Your task to perform on an android device: Search for razer blackwidow on bestbuy.com, select the first entry, add it to the cart, then select checkout. Image 0: 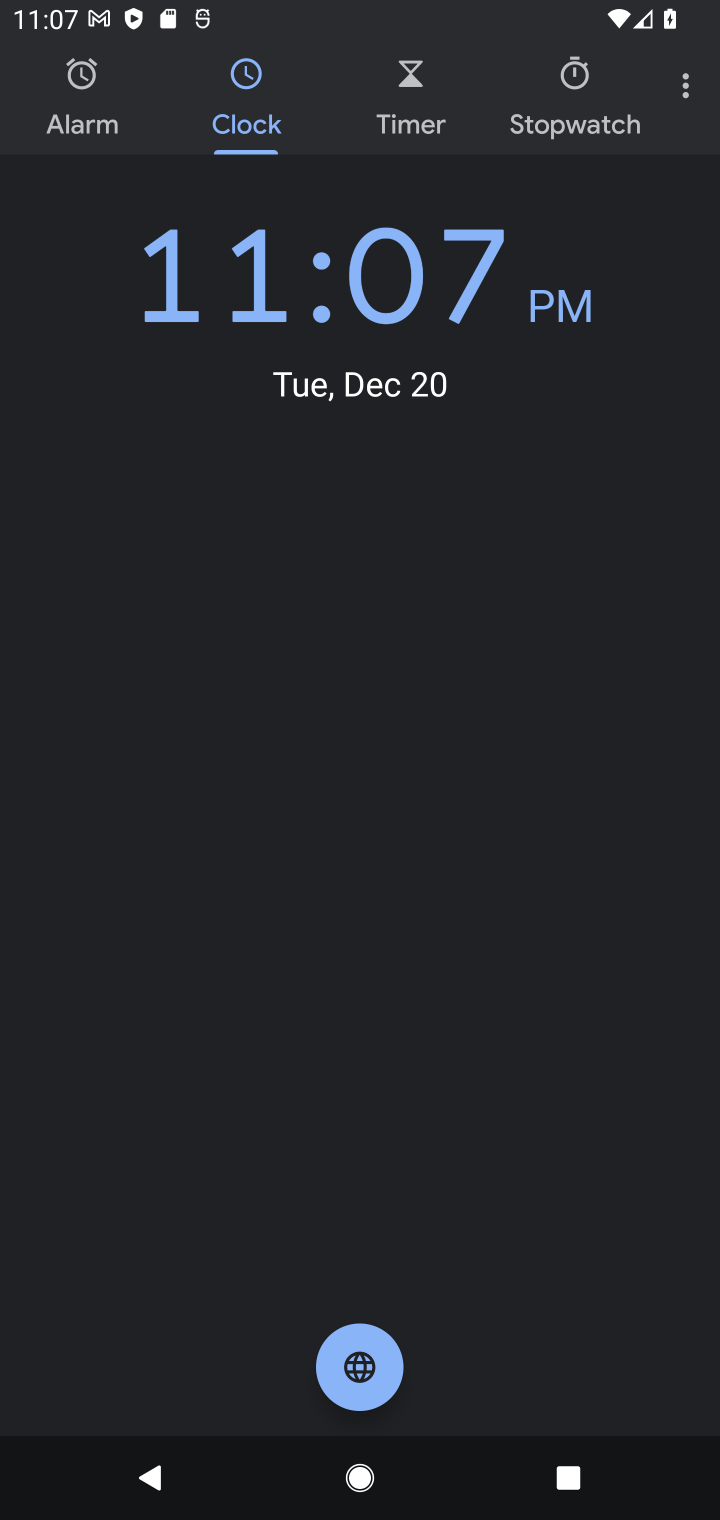
Step 0: press home button
Your task to perform on an android device: Search for razer blackwidow on bestbuy.com, select the first entry, add it to the cart, then select checkout. Image 1: 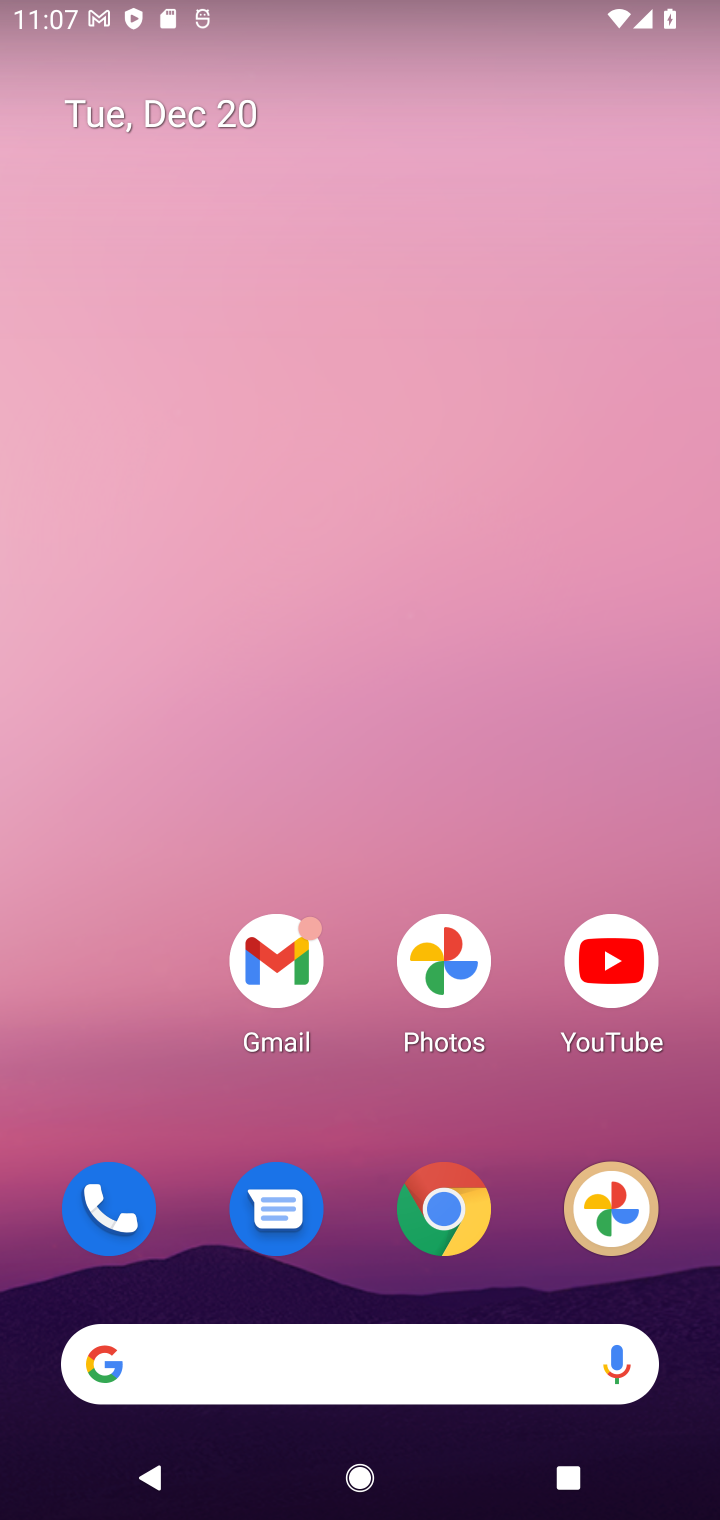
Step 1: click (441, 1211)
Your task to perform on an android device: Search for razer blackwidow on bestbuy.com, select the first entry, add it to the cart, then select checkout. Image 2: 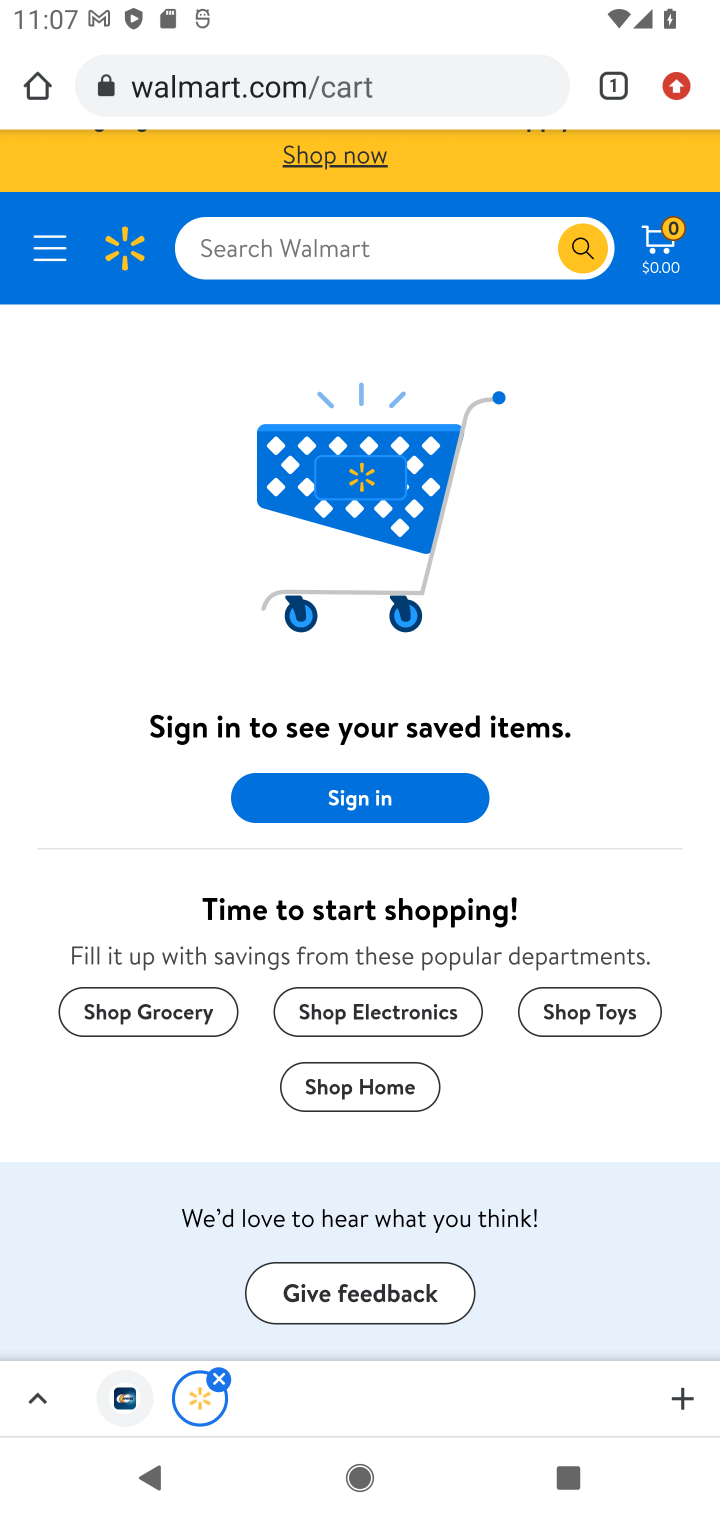
Step 2: click (257, 89)
Your task to perform on an android device: Search for razer blackwidow on bestbuy.com, select the first entry, add it to the cart, then select checkout. Image 3: 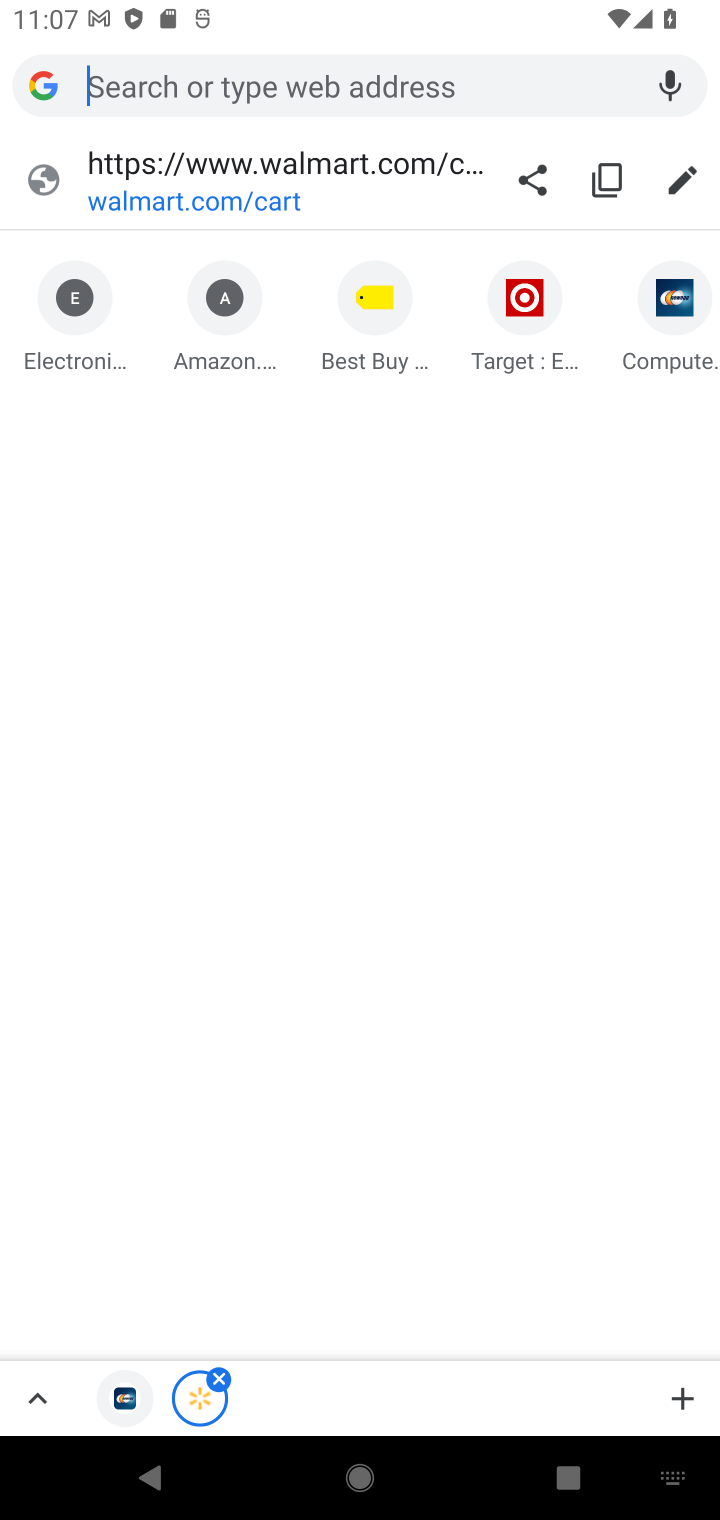
Step 3: click (355, 376)
Your task to perform on an android device: Search for razer blackwidow on bestbuy.com, select the first entry, add it to the cart, then select checkout. Image 4: 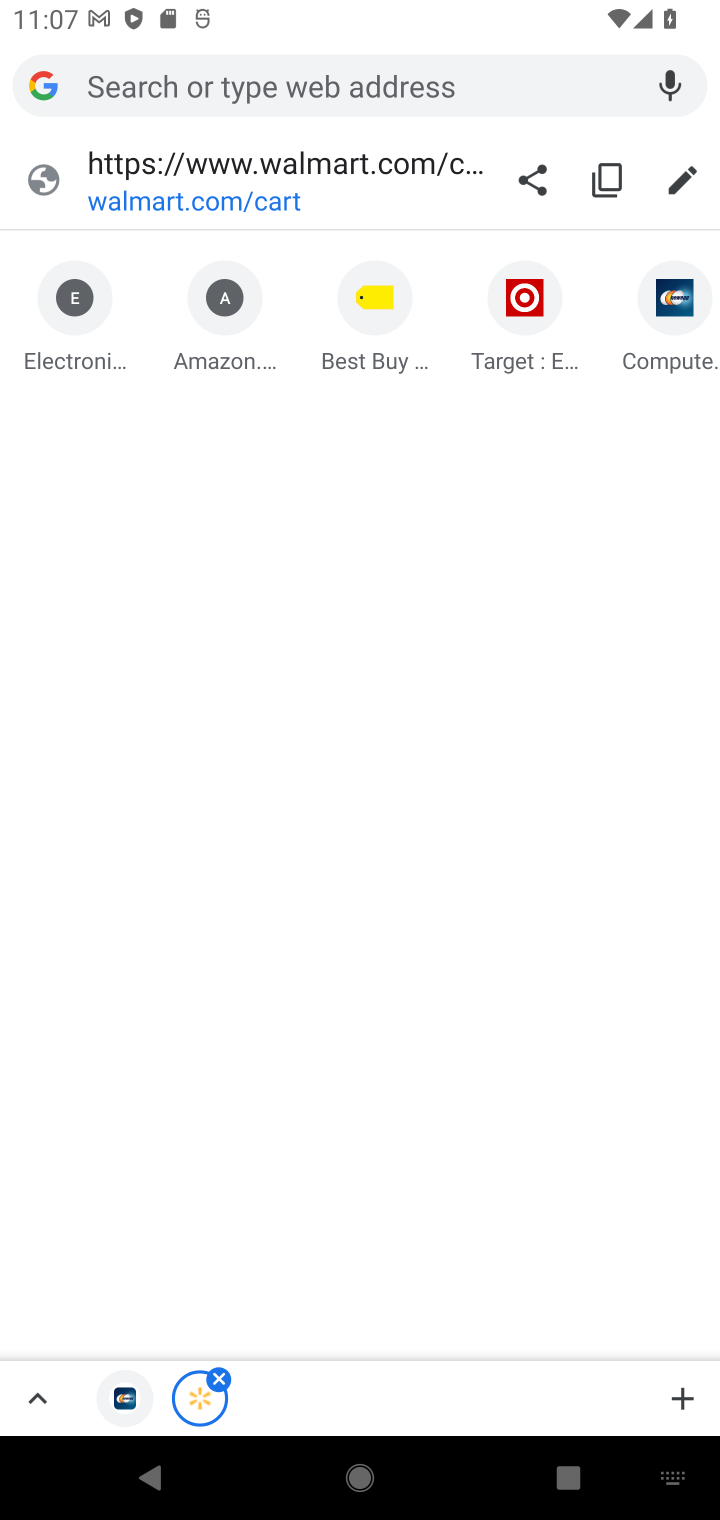
Step 4: click (367, 337)
Your task to perform on an android device: Search for razer blackwidow on bestbuy.com, select the first entry, add it to the cart, then select checkout. Image 5: 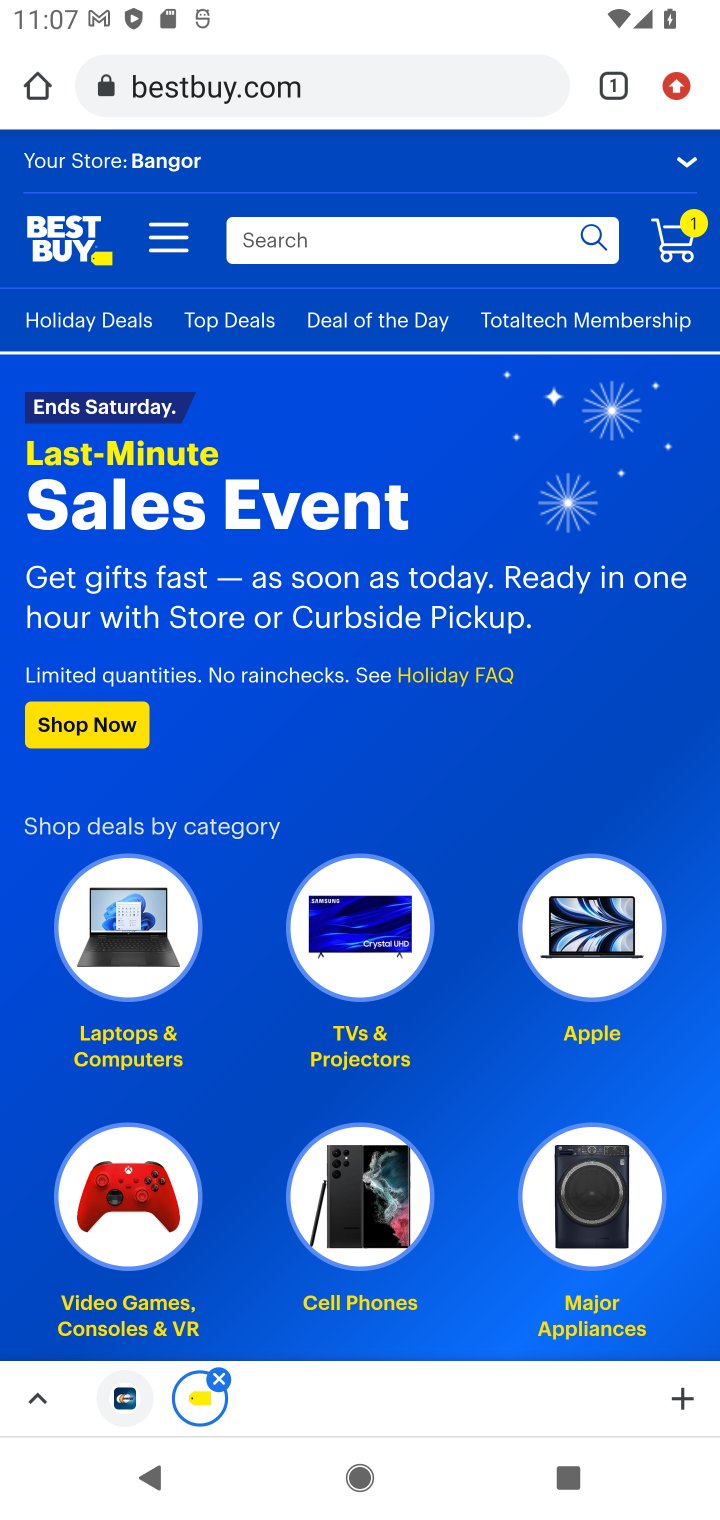
Step 5: click (293, 247)
Your task to perform on an android device: Search for razer blackwidow on bestbuy.com, select the first entry, add it to the cart, then select checkout. Image 6: 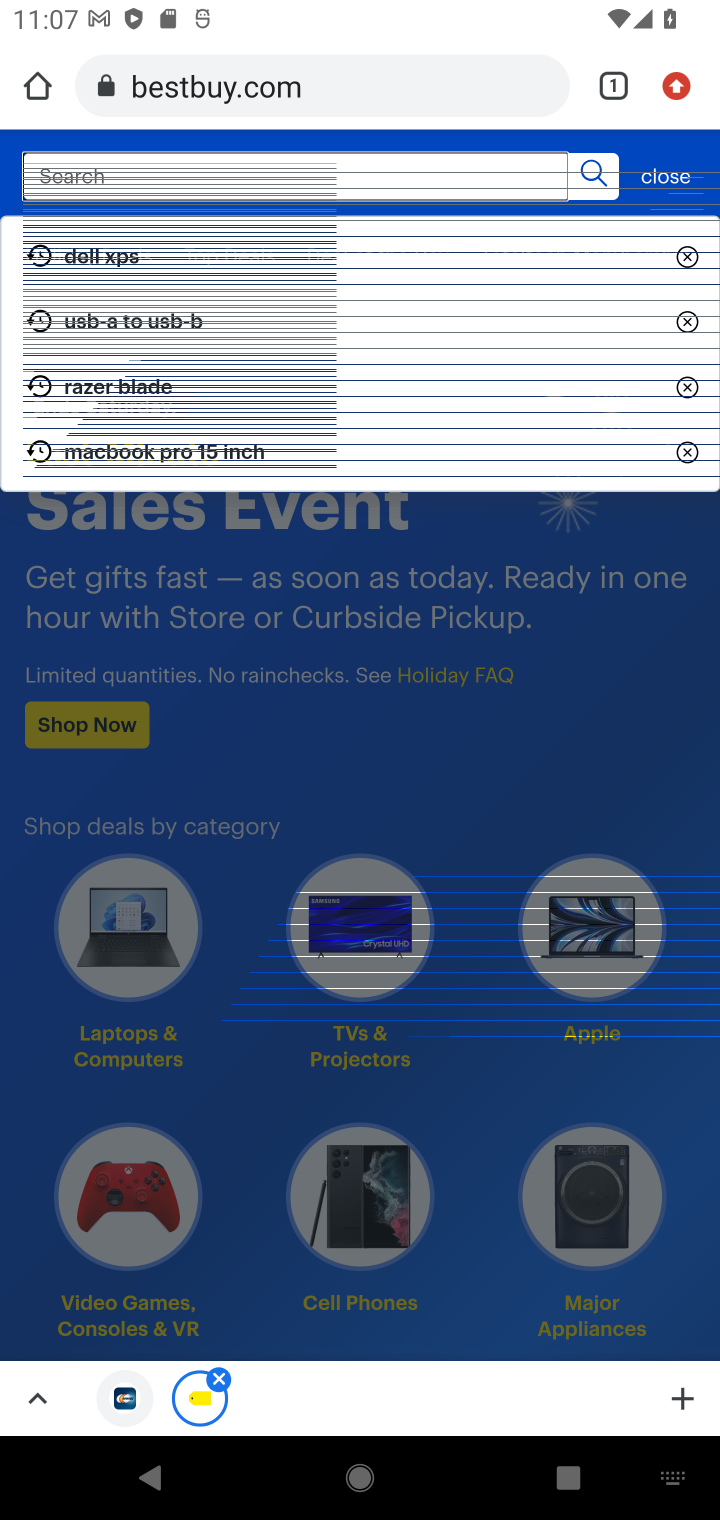
Step 6: type "razer blackwidow"
Your task to perform on an android device: Search for razer blackwidow on bestbuy.com, select the first entry, add it to the cart, then select checkout. Image 7: 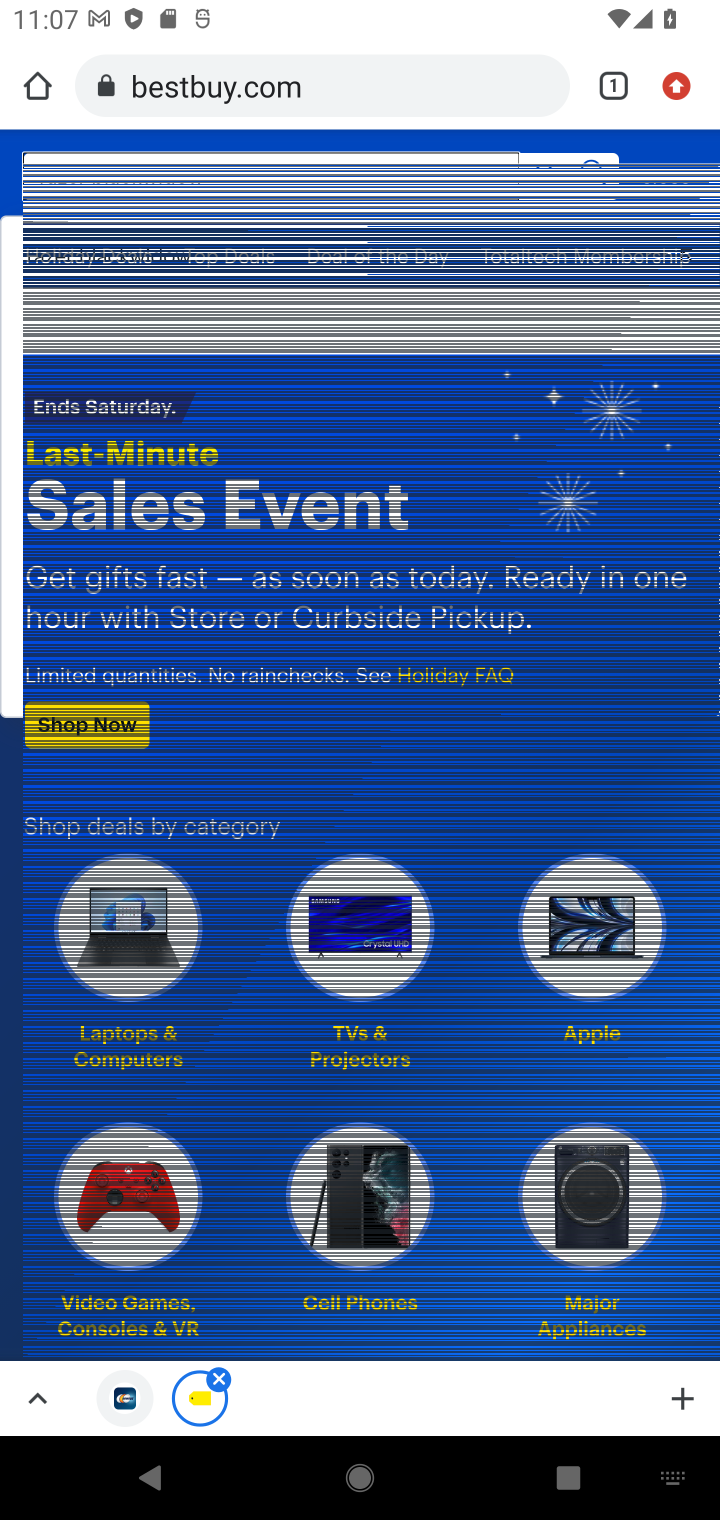
Step 7: click (170, 261)
Your task to perform on an android device: Search for razer blackwidow on bestbuy.com, select the first entry, add it to the cart, then select checkout. Image 8: 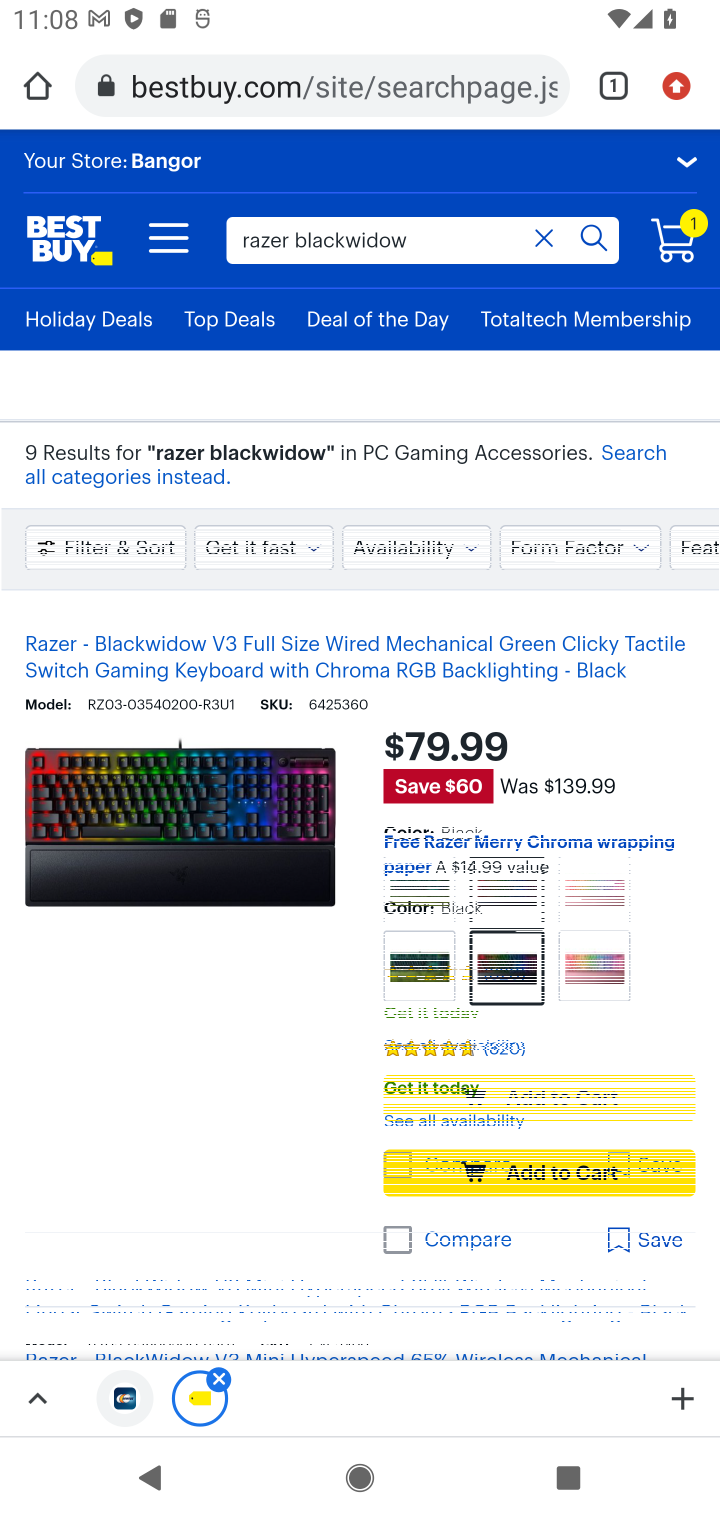
Step 8: click (513, 1102)
Your task to perform on an android device: Search for razer blackwidow on bestbuy.com, select the first entry, add it to the cart, then select checkout. Image 9: 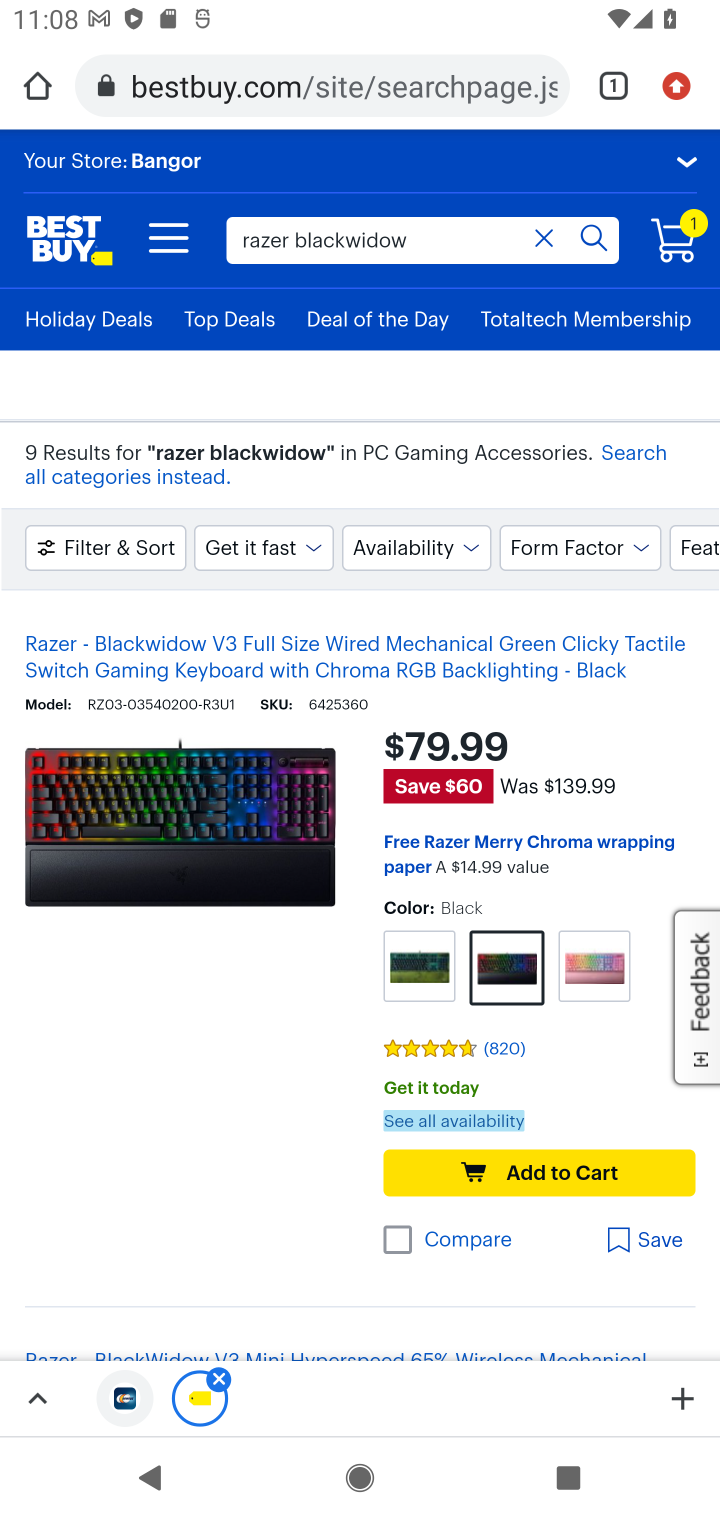
Step 9: click (502, 1164)
Your task to perform on an android device: Search for razer blackwidow on bestbuy.com, select the first entry, add it to the cart, then select checkout. Image 10: 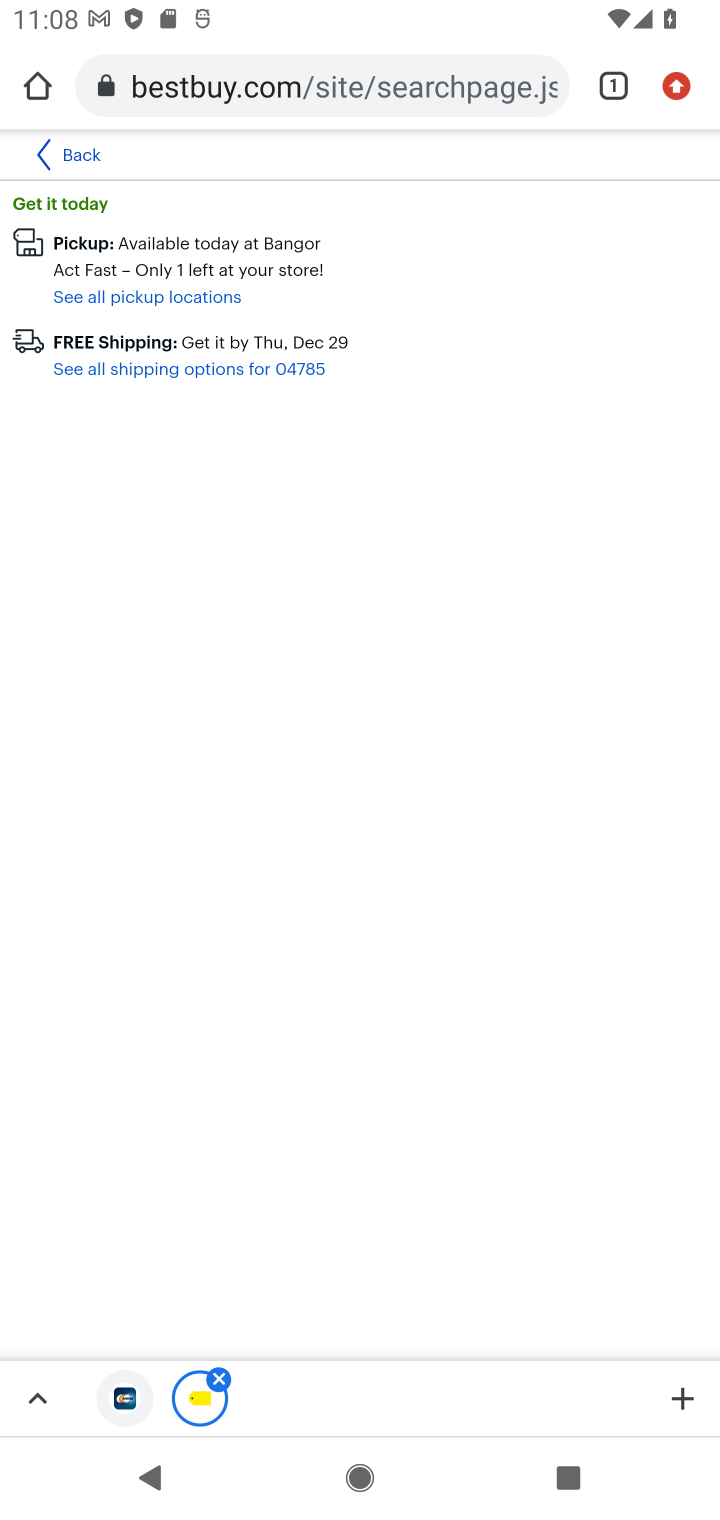
Step 10: click (53, 141)
Your task to perform on an android device: Search for razer blackwidow on bestbuy.com, select the first entry, add it to the cart, then select checkout. Image 11: 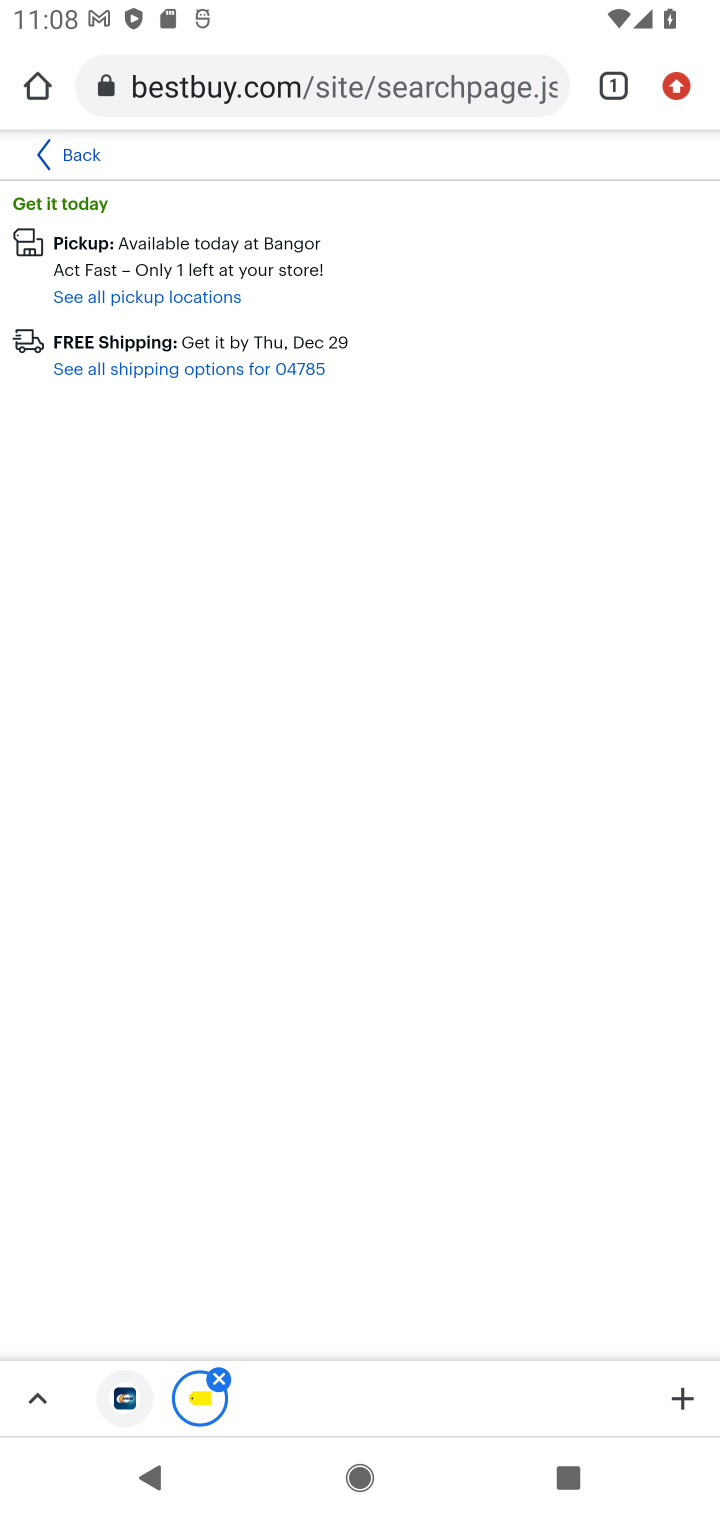
Step 11: click (81, 160)
Your task to perform on an android device: Search for razer blackwidow on bestbuy.com, select the first entry, add it to the cart, then select checkout. Image 12: 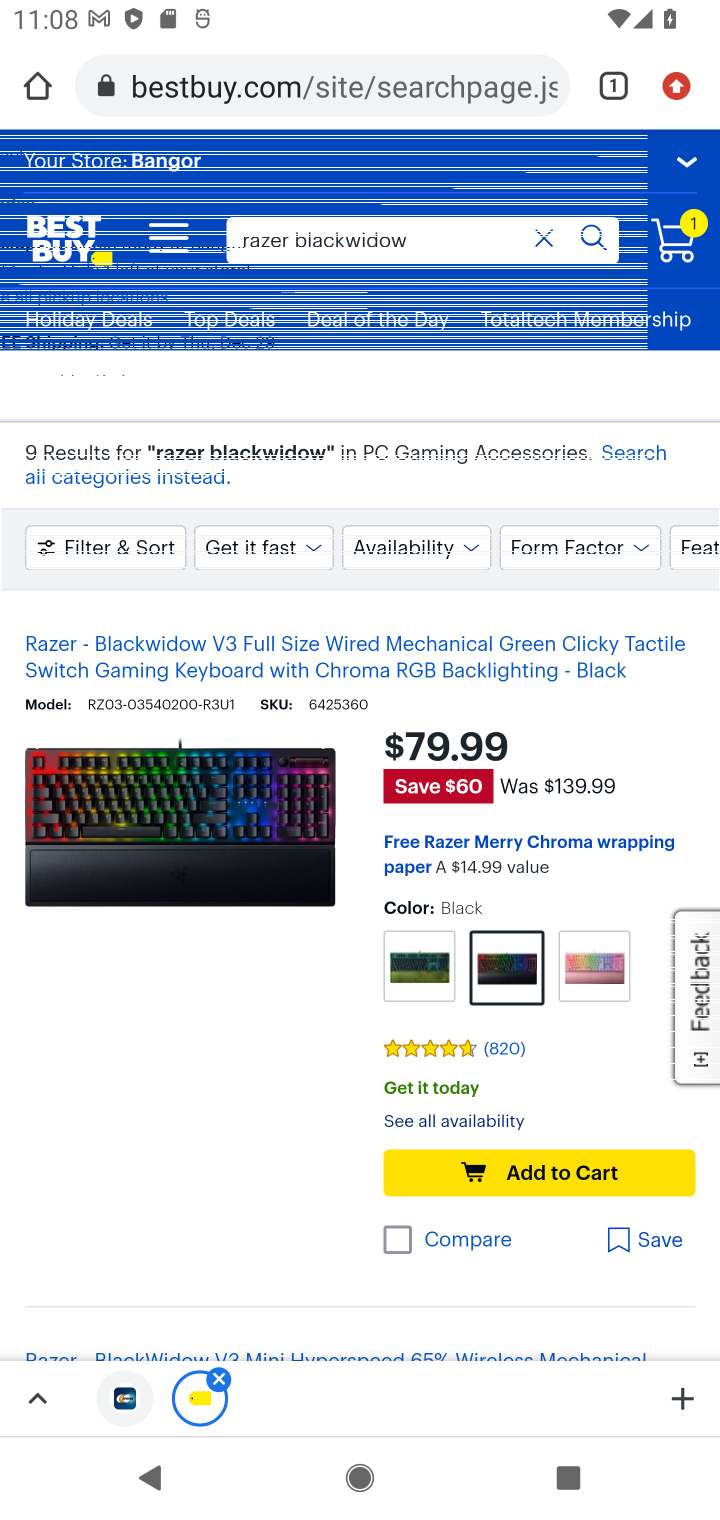
Step 12: click (513, 1165)
Your task to perform on an android device: Search for razer blackwidow on bestbuy.com, select the first entry, add it to the cart, then select checkout. Image 13: 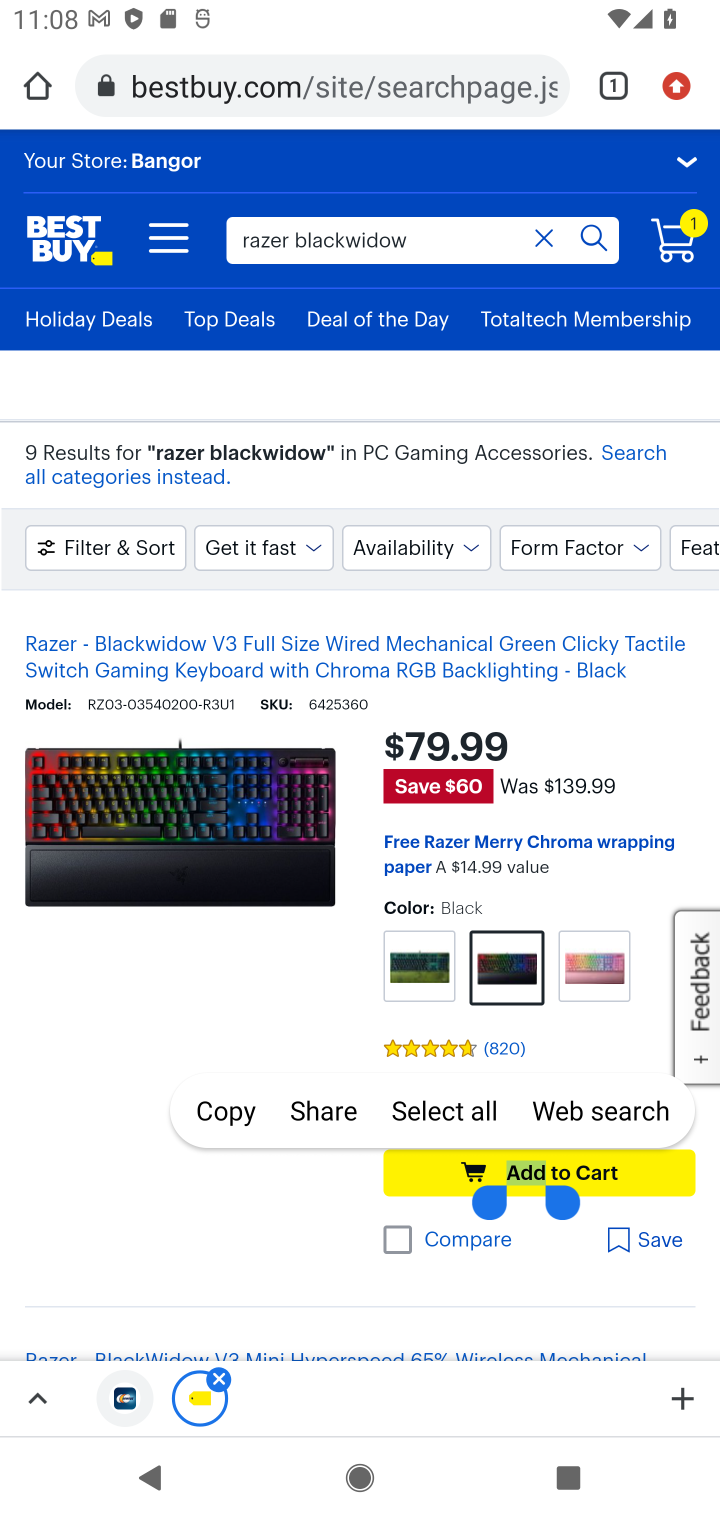
Step 13: click (562, 1174)
Your task to perform on an android device: Search for razer blackwidow on bestbuy.com, select the first entry, add it to the cart, then select checkout. Image 14: 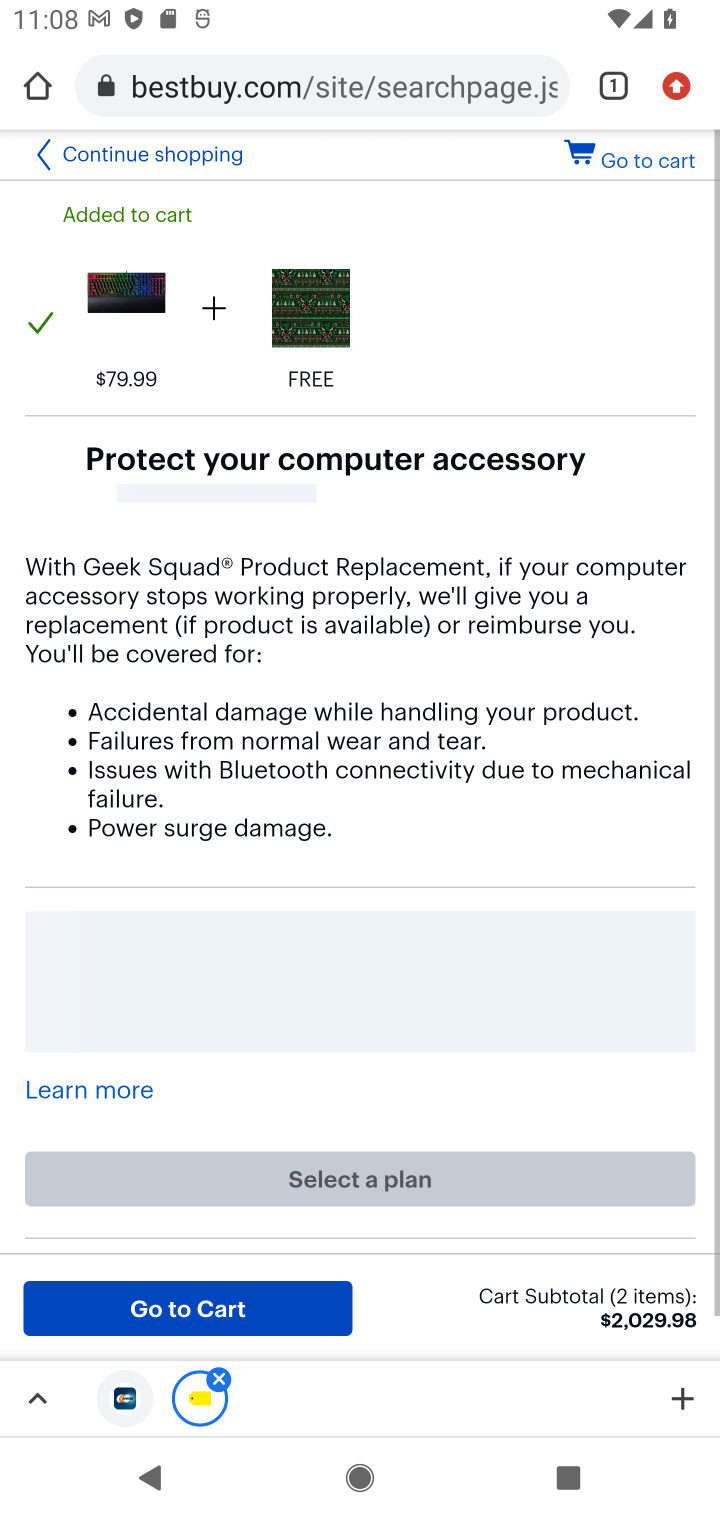
Step 14: click (673, 166)
Your task to perform on an android device: Search for razer blackwidow on bestbuy.com, select the first entry, add it to the cart, then select checkout. Image 15: 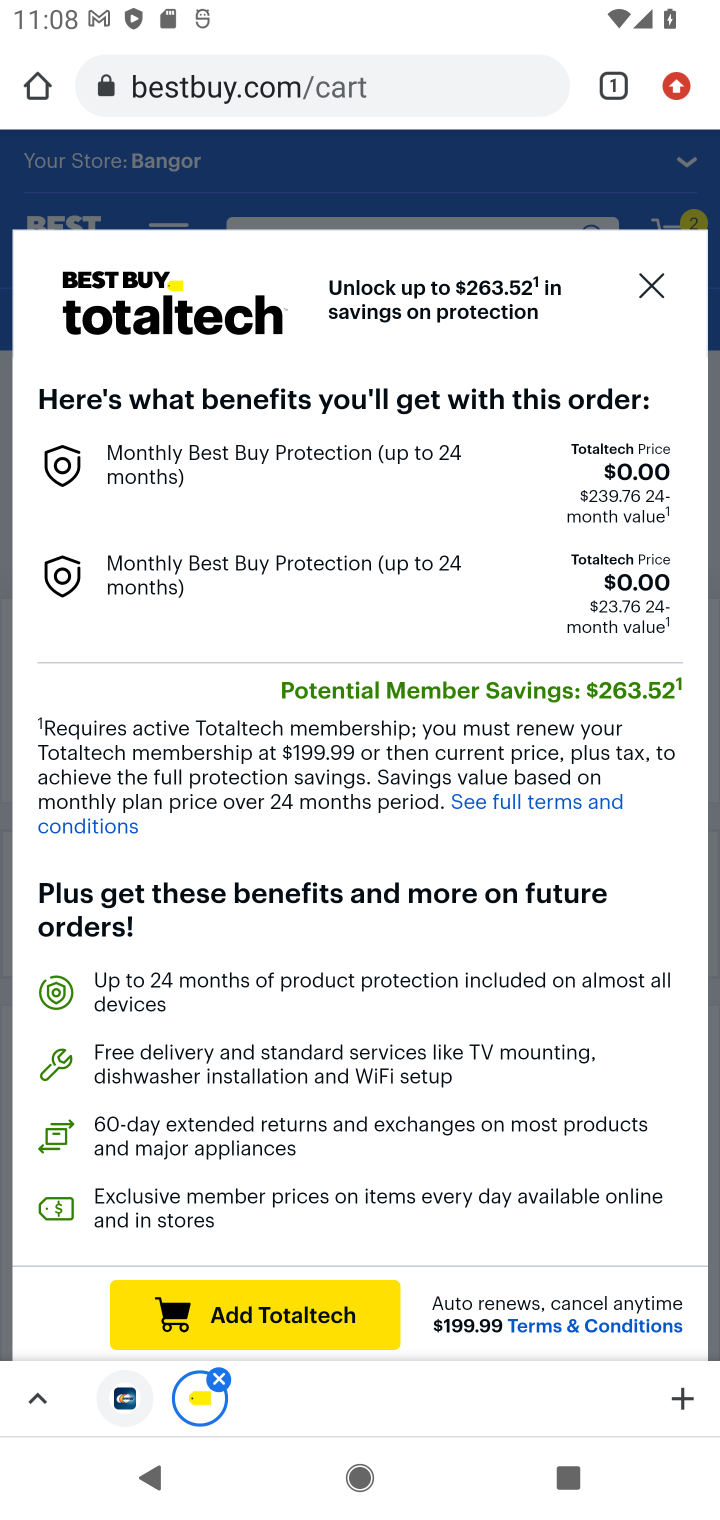
Step 15: click (666, 288)
Your task to perform on an android device: Search for razer blackwidow on bestbuy.com, select the first entry, add it to the cart, then select checkout. Image 16: 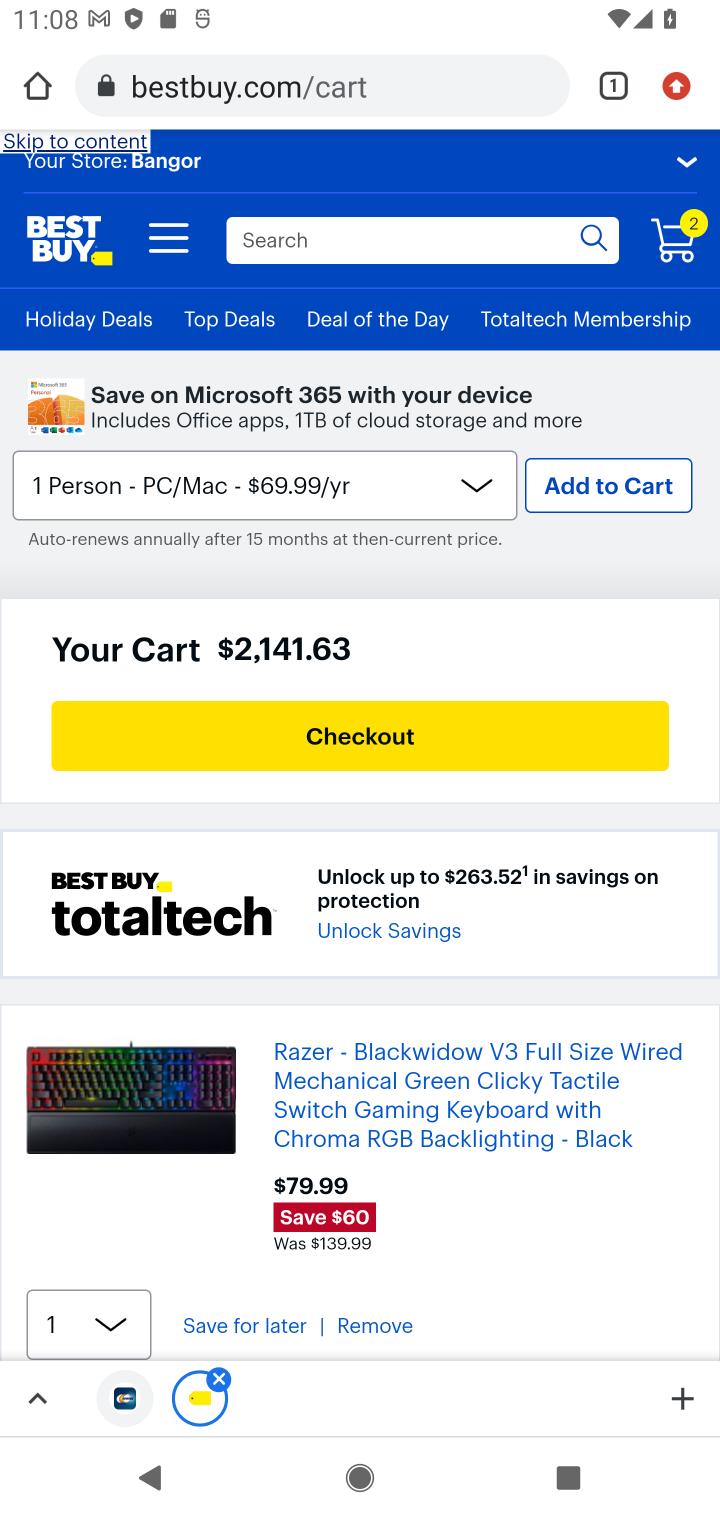
Step 16: click (323, 749)
Your task to perform on an android device: Search for razer blackwidow on bestbuy.com, select the first entry, add it to the cart, then select checkout. Image 17: 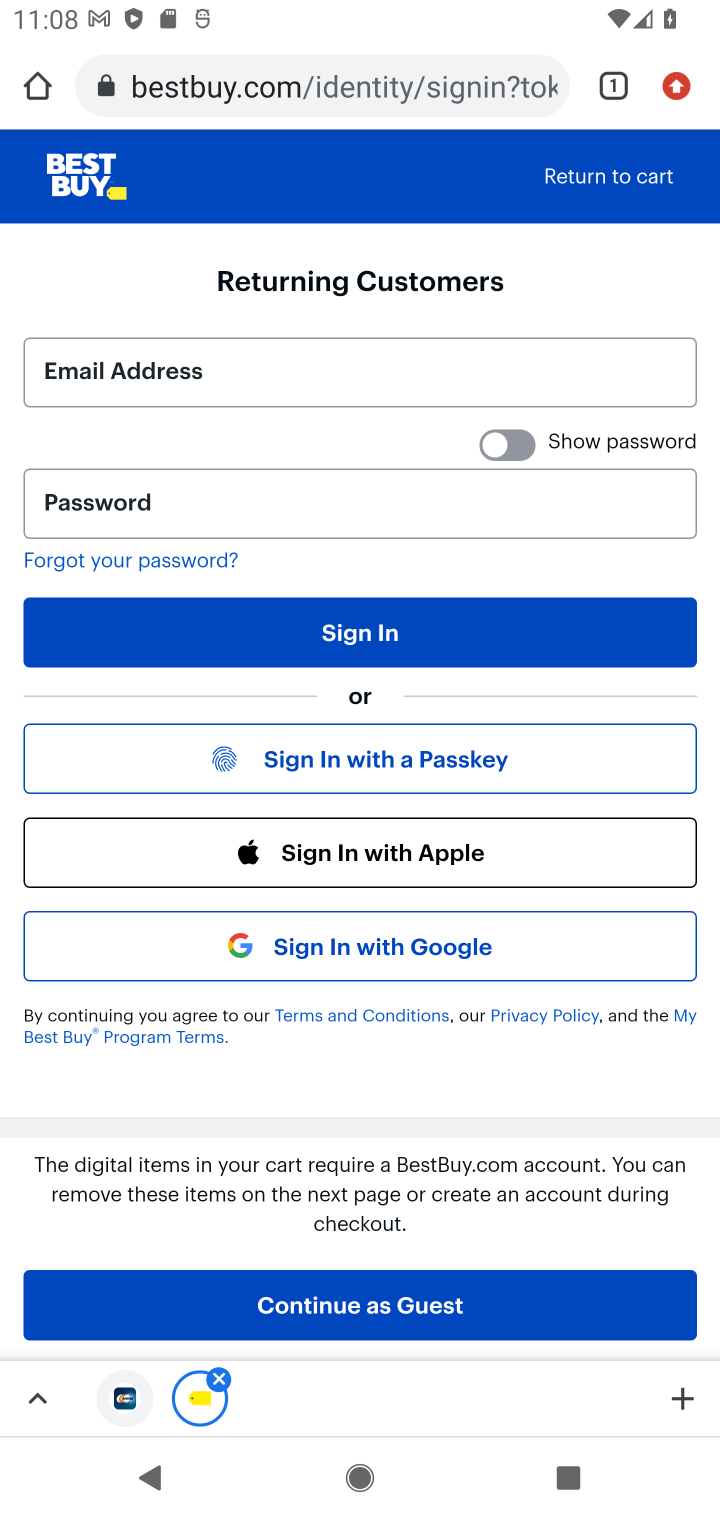
Step 17: task complete